Your task to perform on an android device: Turn off the flashlight Image 0: 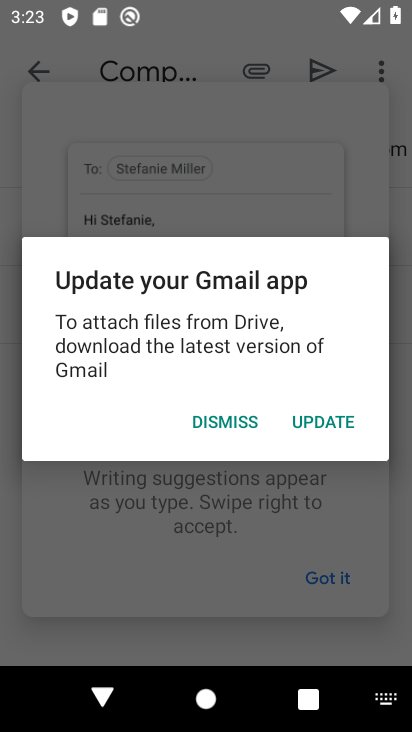
Step 0: press home button
Your task to perform on an android device: Turn off the flashlight Image 1: 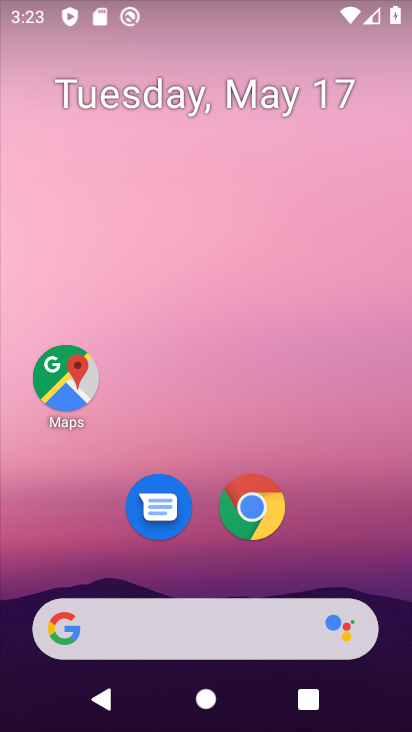
Step 1: task complete